Your task to perform on an android device: open a new tab in the chrome app Image 0: 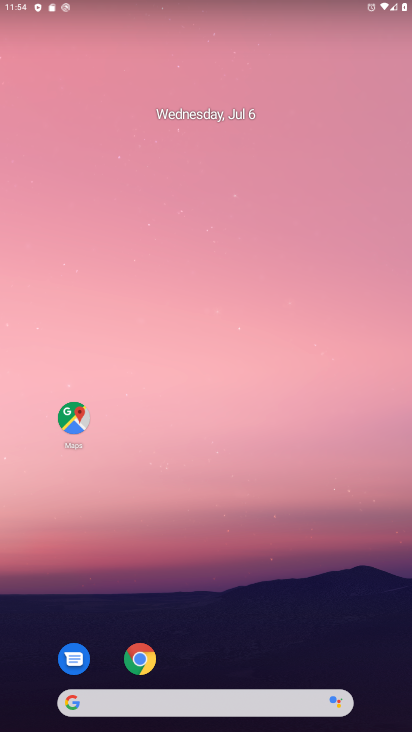
Step 0: click (142, 660)
Your task to perform on an android device: open a new tab in the chrome app Image 1: 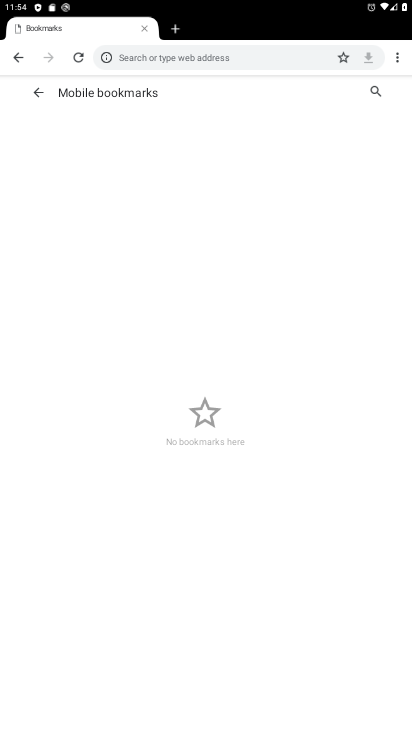
Step 1: click (174, 27)
Your task to perform on an android device: open a new tab in the chrome app Image 2: 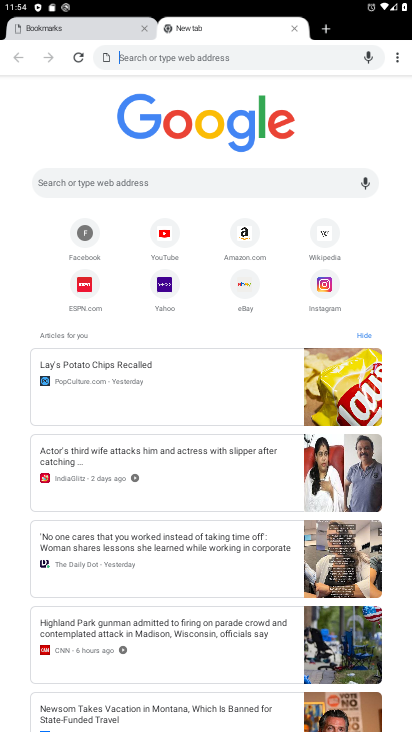
Step 2: task complete